Your task to perform on an android device: delete browsing data in the chrome app Image 0: 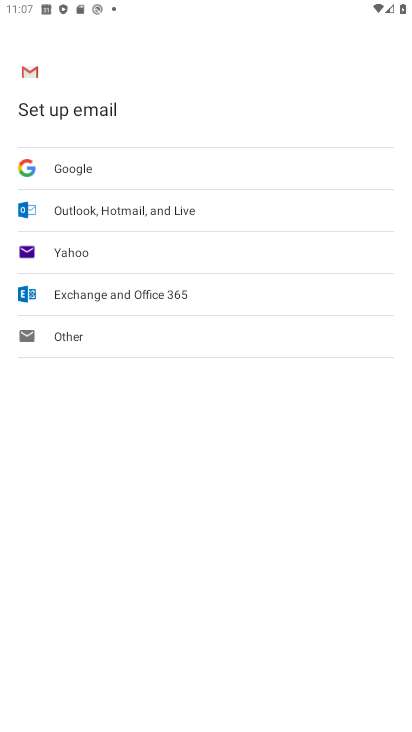
Step 0: press home button
Your task to perform on an android device: delete browsing data in the chrome app Image 1: 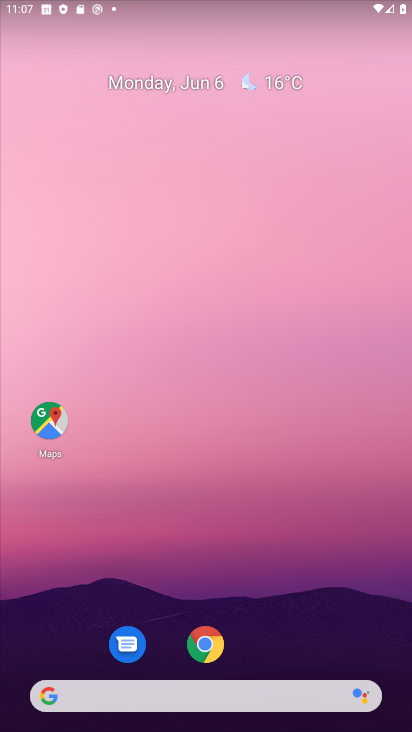
Step 1: click (217, 652)
Your task to perform on an android device: delete browsing data in the chrome app Image 2: 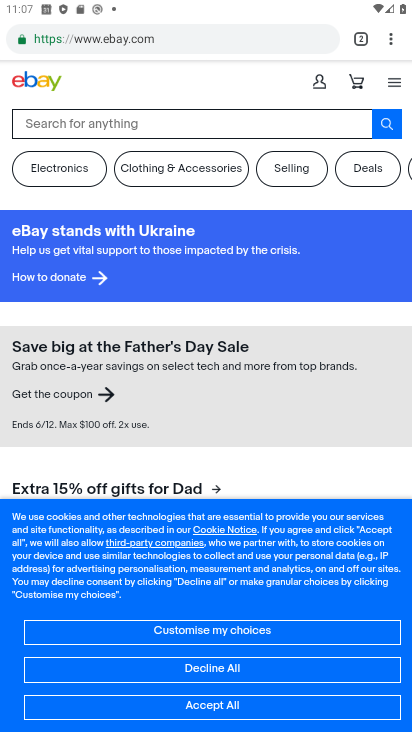
Step 2: click (387, 50)
Your task to perform on an android device: delete browsing data in the chrome app Image 3: 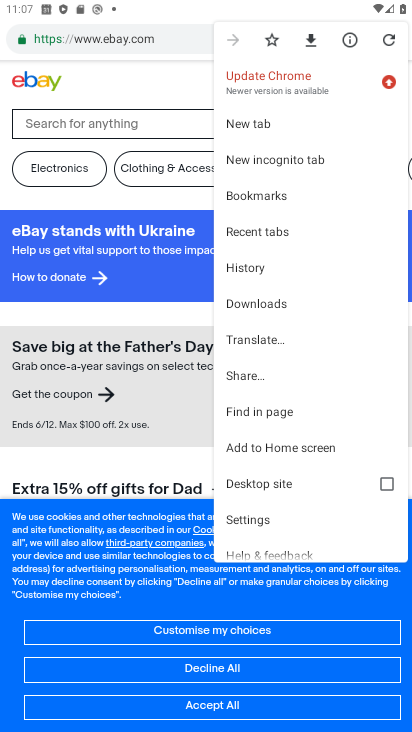
Step 3: click (303, 275)
Your task to perform on an android device: delete browsing data in the chrome app Image 4: 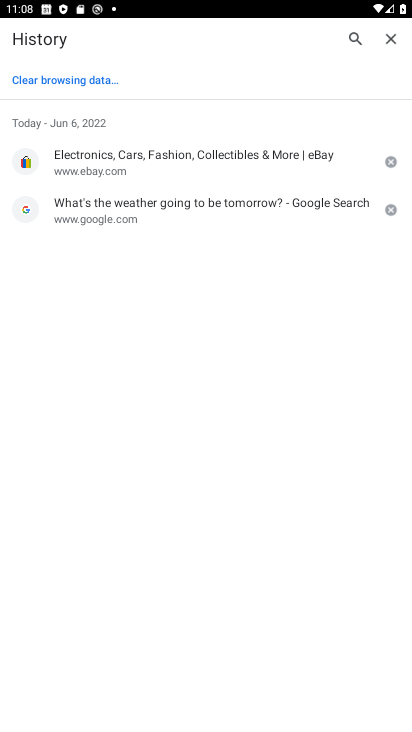
Step 4: click (89, 78)
Your task to perform on an android device: delete browsing data in the chrome app Image 5: 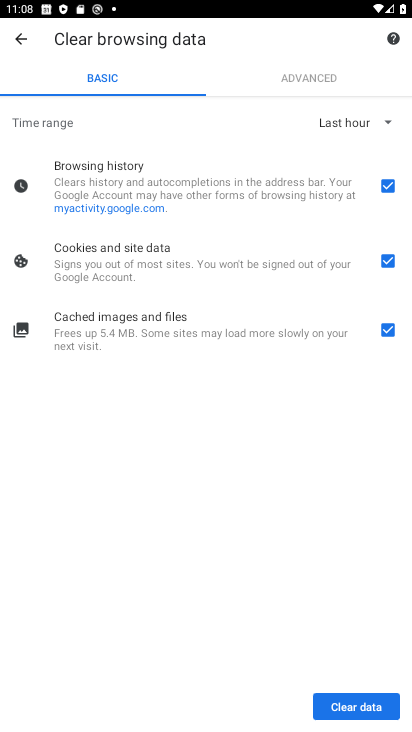
Step 5: click (386, 716)
Your task to perform on an android device: delete browsing data in the chrome app Image 6: 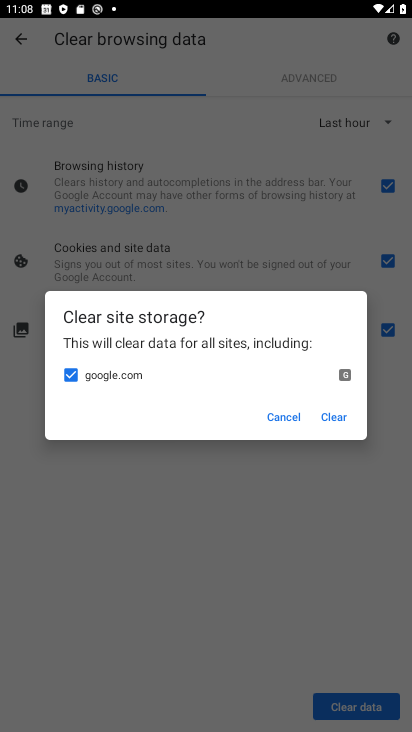
Step 6: click (341, 416)
Your task to perform on an android device: delete browsing data in the chrome app Image 7: 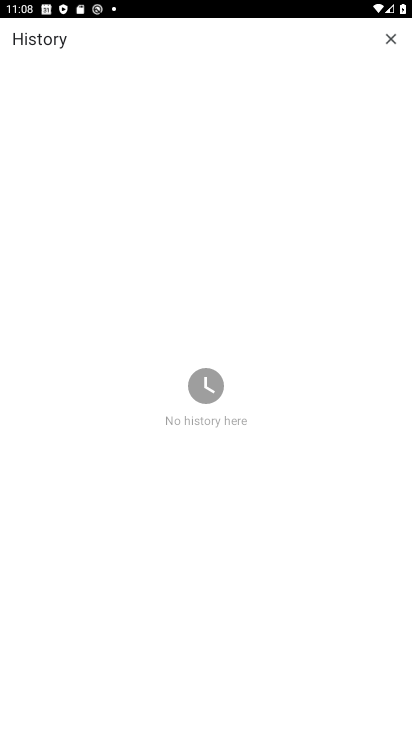
Step 7: task complete